Your task to perform on an android device: open app "Venmo" (install if not already installed), go to login, and select forgot password Image 0: 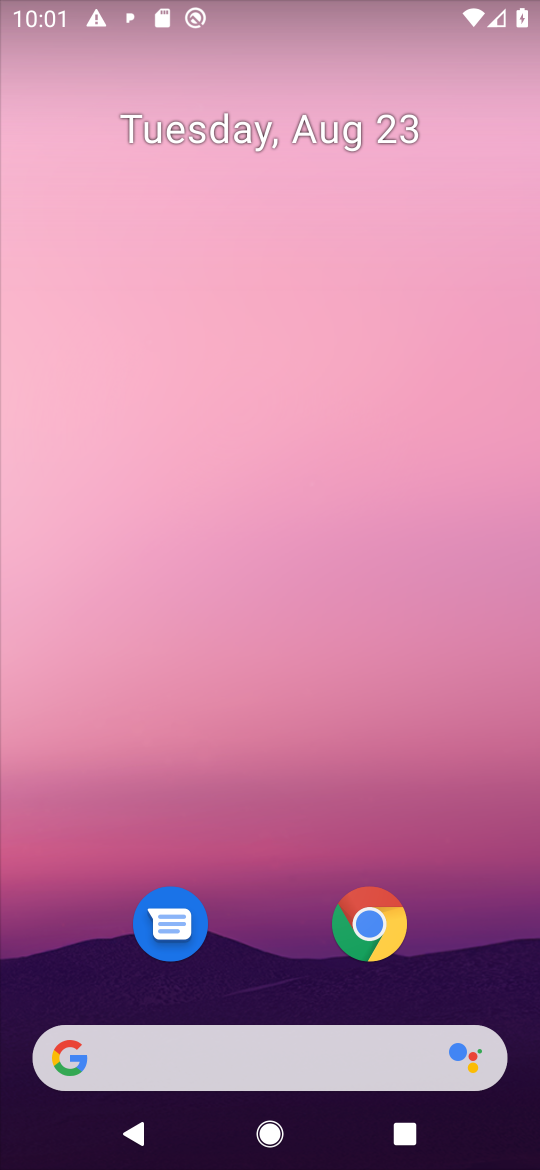
Step 0: drag from (472, 919) to (440, 90)
Your task to perform on an android device: open app "Venmo" (install if not already installed), go to login, and select forgot password Image 1: 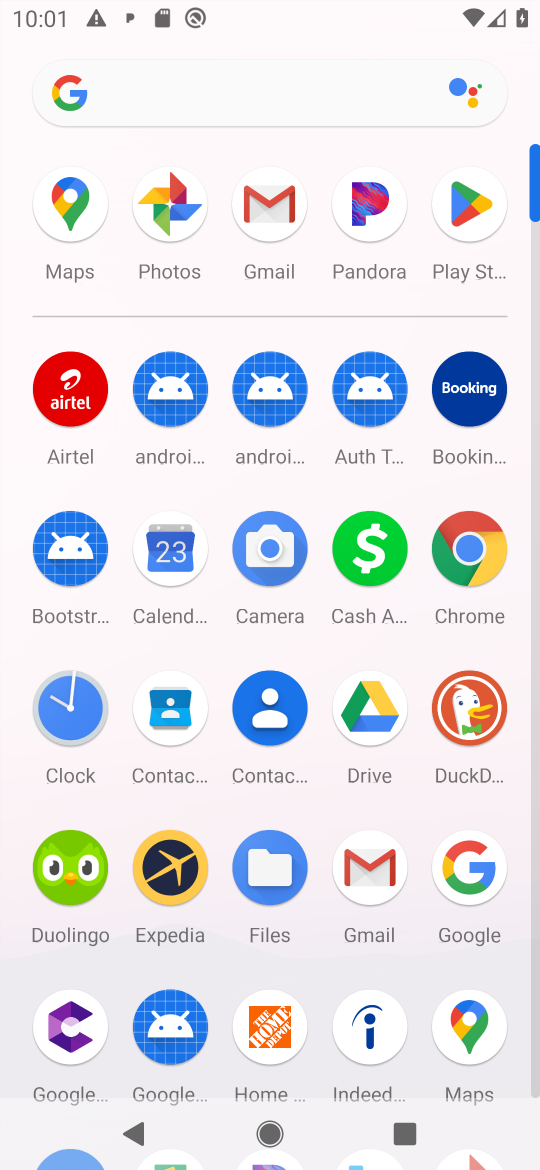
Step 1: click (473, 213)
Your task to perform on an android device: open app "Venmo" (install if not already installed), go to login, and select forgot password Image 2: 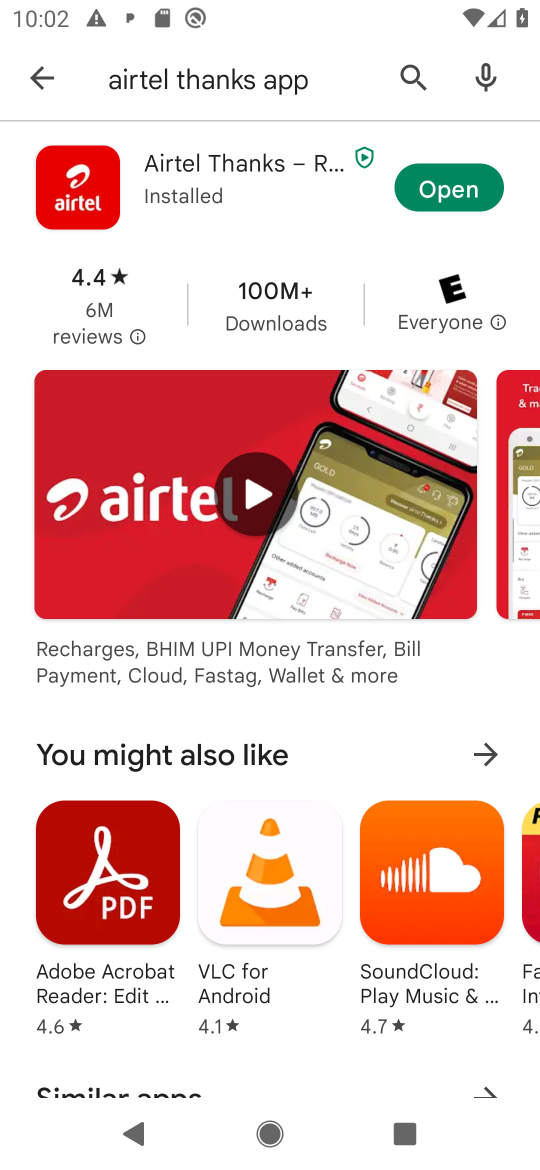
Step 2: press back button
Your task to perform on an android device: open app "Venmo" (install if not already installed), go to login, and select forgot password Image 3: 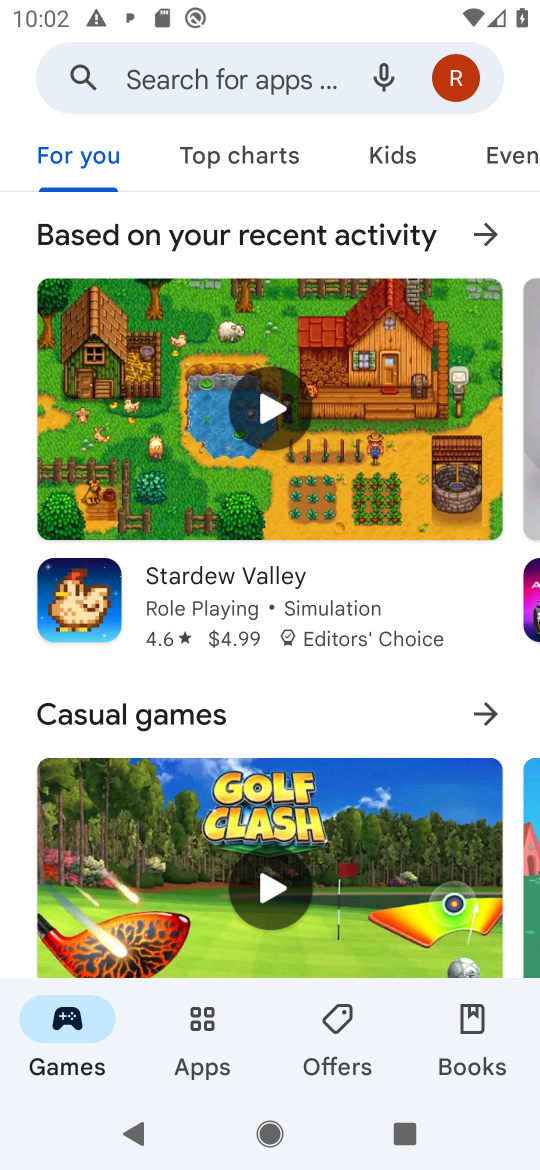
Step 3: click (199, 73)
Your task to perform on an android device: open app "Venmo" (install if not already installed), go to login, and select forgot password Image 4: 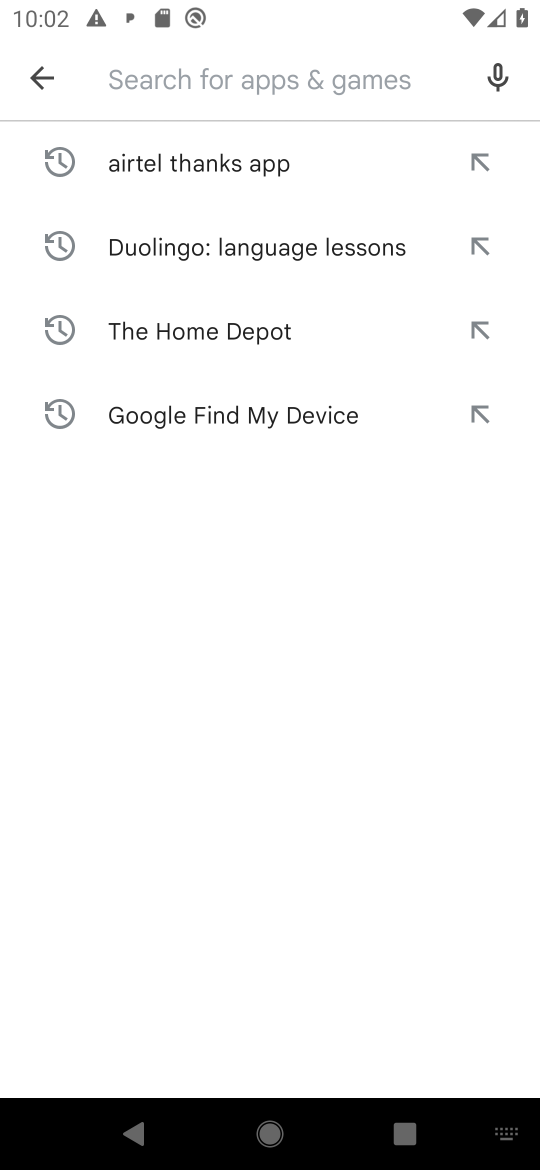
Step 4: press enter
Your task to perform on an android device: open app "Venmo" (install if not already installed), go to login, and select forgot password Image 5: 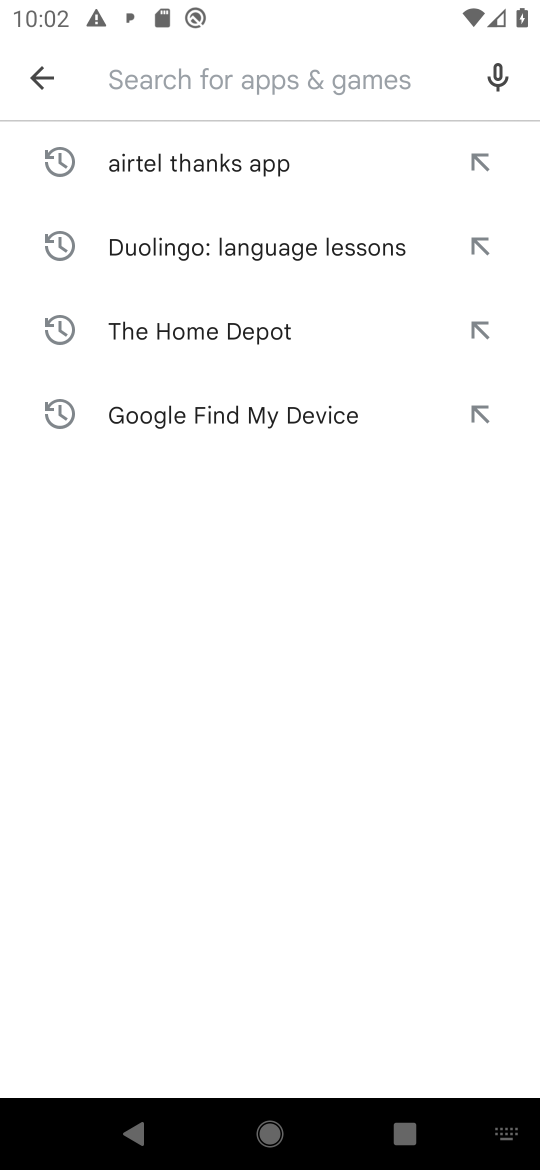
Step 5: type "venmo"
Your task to perform on an android device: open app "Venmo" (install if not already installed), go to login, and select forgot password Image 6: 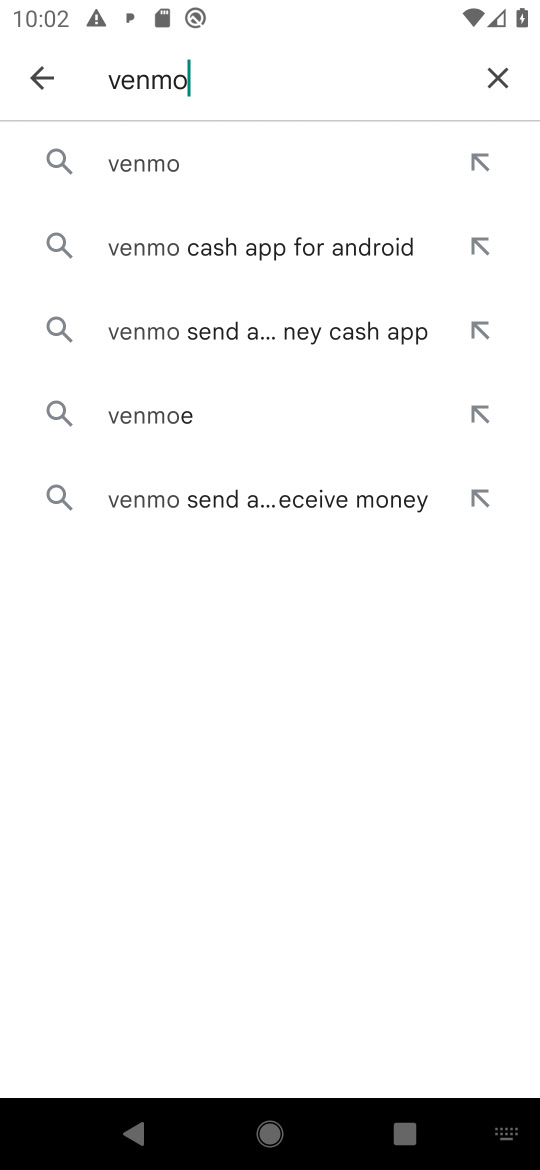
Step 6: click (235, 179)
Your task to perform on an android device: open app "Venmo" (install if not already installed), go to login, and select forgot password Image 7: 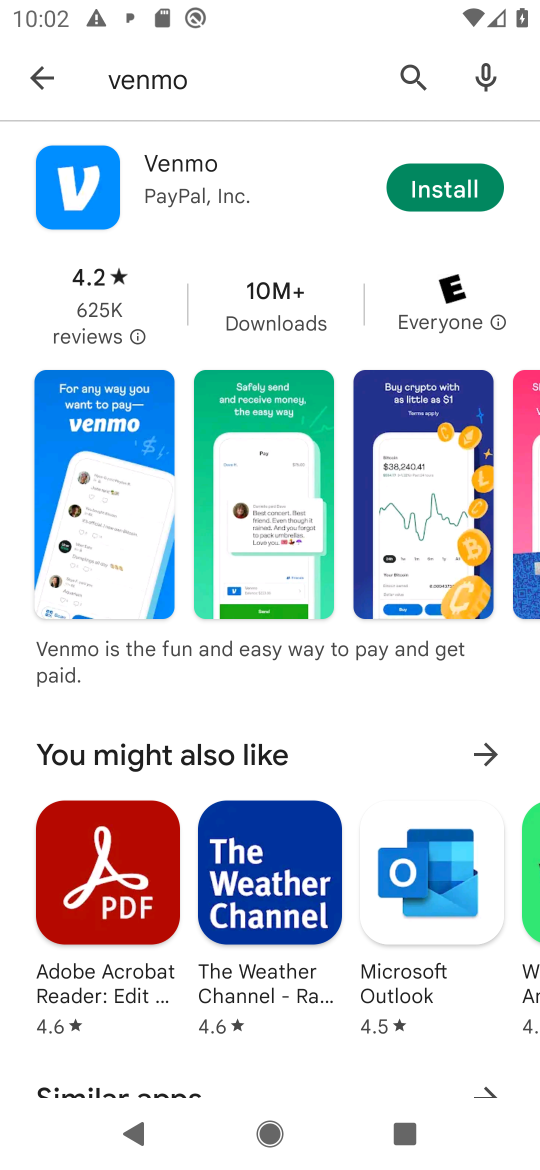
Step 7: click (464, 194)
Your task to perform on an android device: open app "Venmo" (install if not already installed), go to login, and select forgot password Image 8: 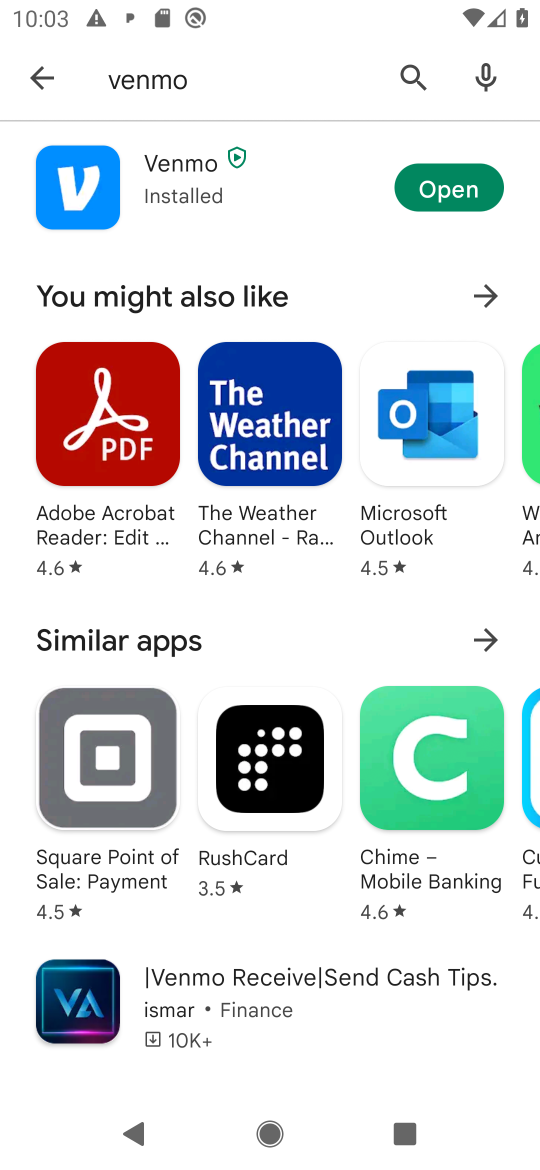
Step 8: click (468, 190)
Your task to perform on an android device: open app "Venmo" (install if not already installed), go to login, and select forgot password Image 9: 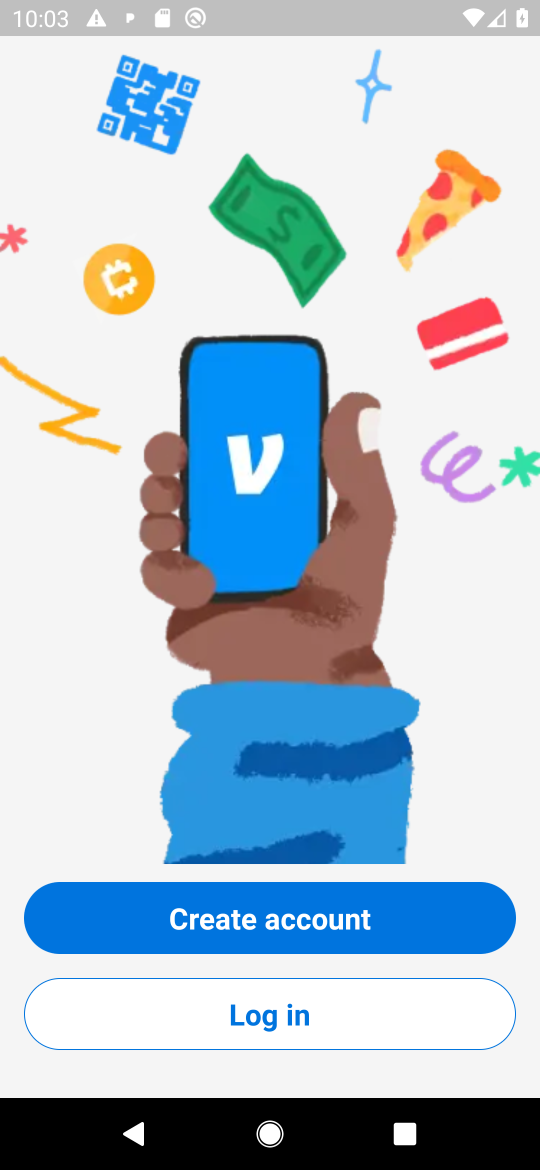
Step 9: click (357, 1026)
Your task to perform on an android device: open app "Venmo" (install if not already installed), go to login, and select forgot password Image 10: 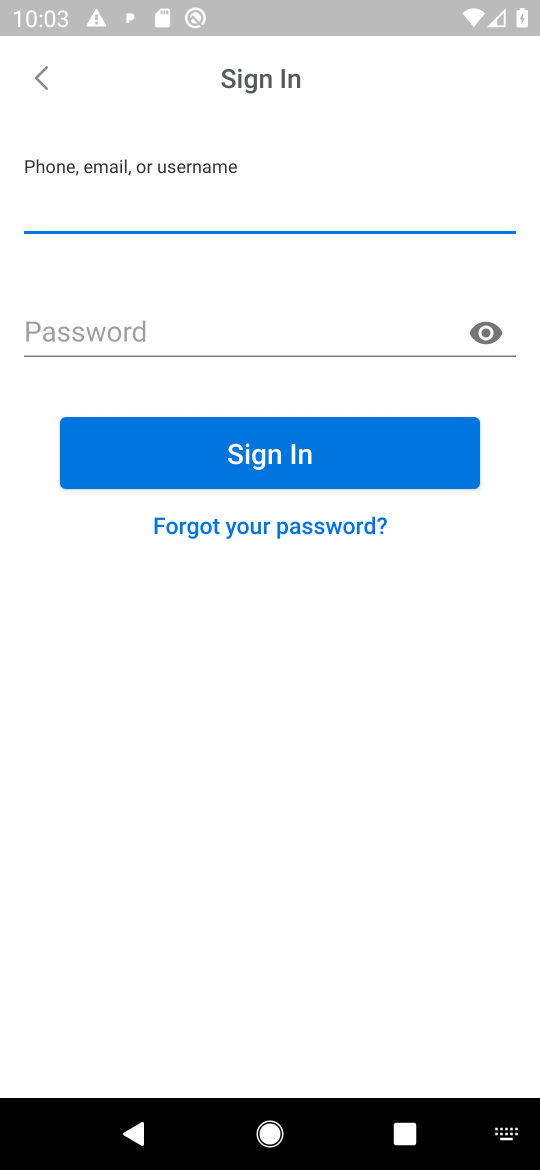
Step 10: click (323, 529)
Your task to perform on an android device: open app "Venmo" (install if not already installed), go to login, and select forgot password Image 11: 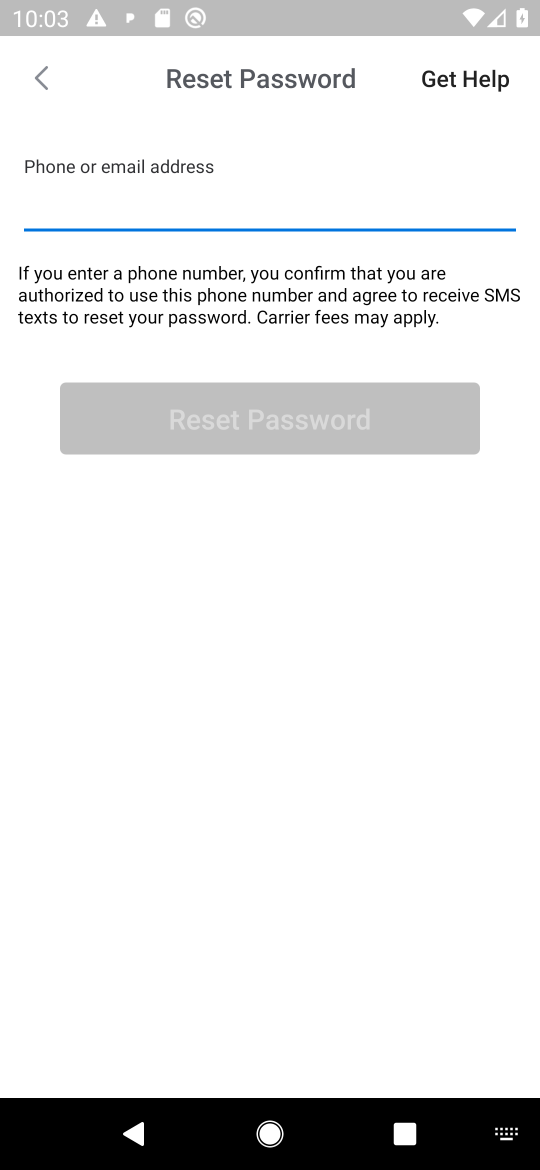
Step 11: task complete